Your task to perform on an android device: turn off airplane mode Image 0: 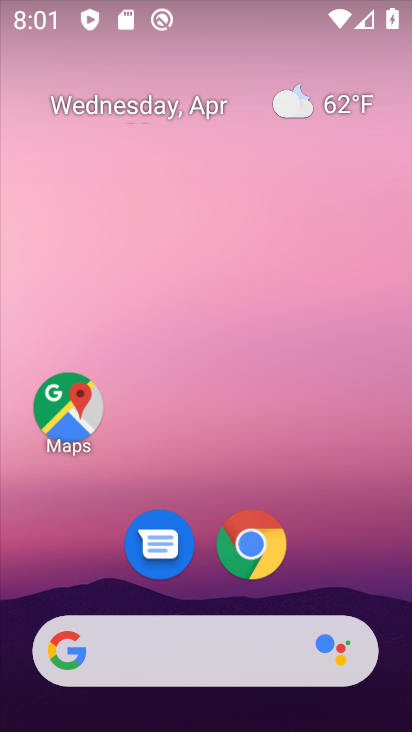
Step 0: drag from (205, 549) to (215, 42)
Your task to perform on an android device: turn off airplane mode Image 1: 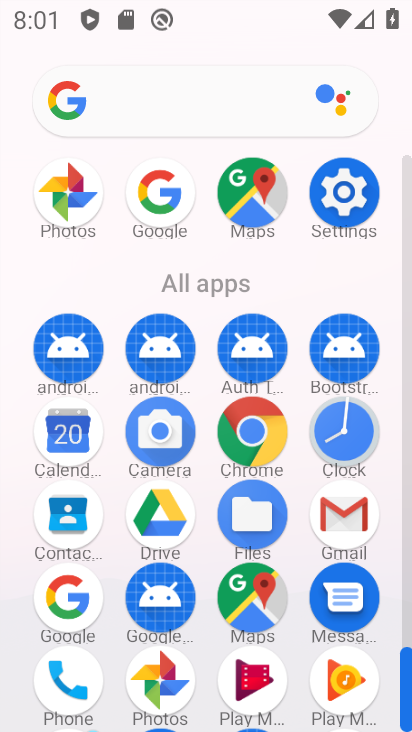
Step 1: click (329, 208)
Your task to perform on an android device: turn off airplane mode Image 2: 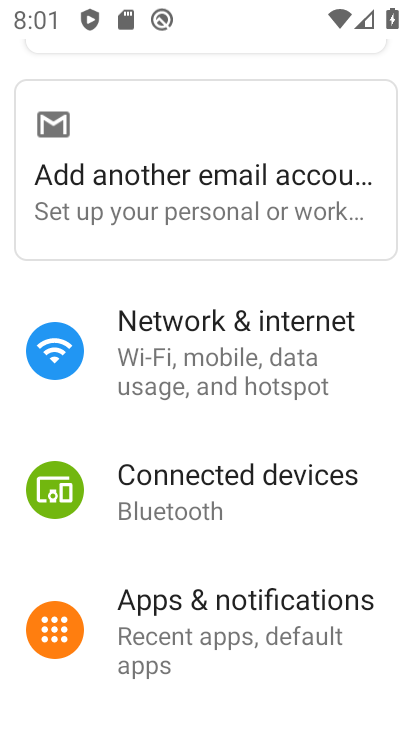
Step 2: click (197, 357)
Your task to perform on an android device: turn off airplane mode Image 3: 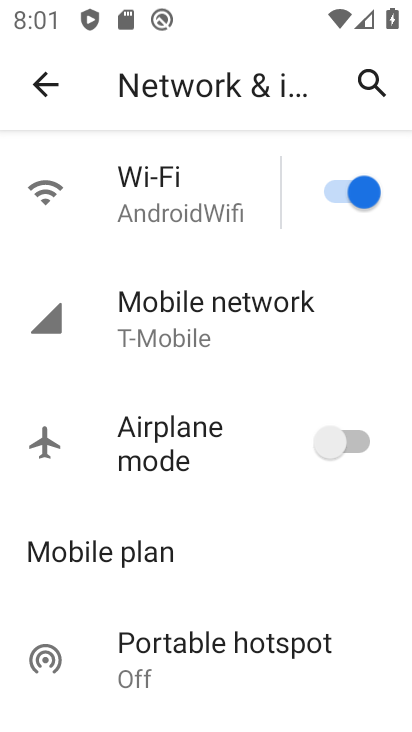
Step 3: task complete